Your task to perform on an android device: What's the weather going to be this weekend? Image 0: 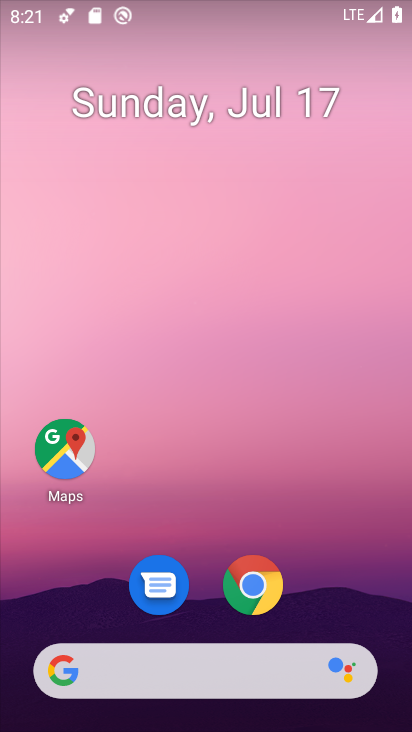
Step 0: click (247, 657)
Your task to perform on an android device: What's the weather going to be this weekend? Image 1: 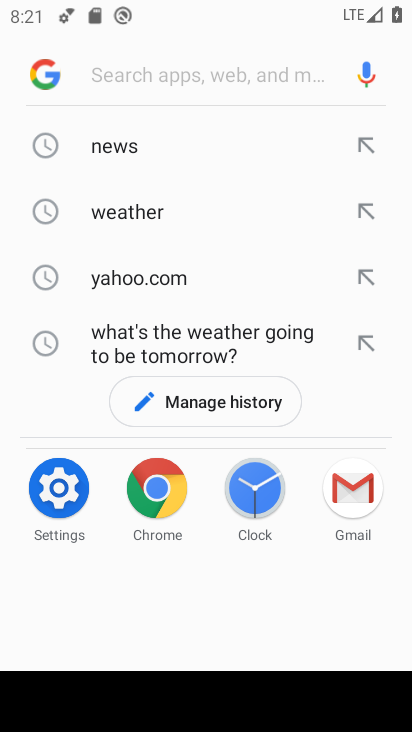
Step 1: click (145, 206)
Your task to perform on an android device: What's the weather going to be this weekend? Image 2: 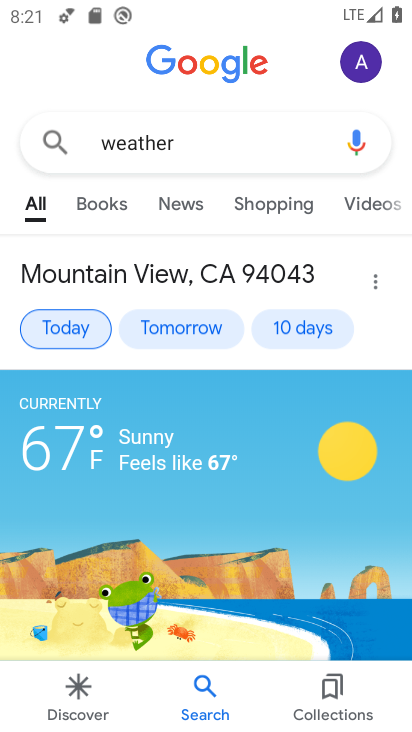
Step 2: click (55, 321)
Your task to perform on an android device: What's the weather going to be this weekend? Image 3: 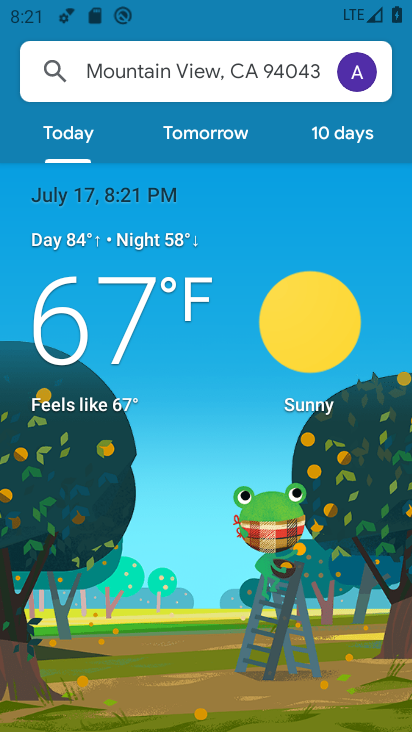
Step 3: click (361, 137)
Your task to perform on an android device: What's the weather going to be this weekend? Image 4: 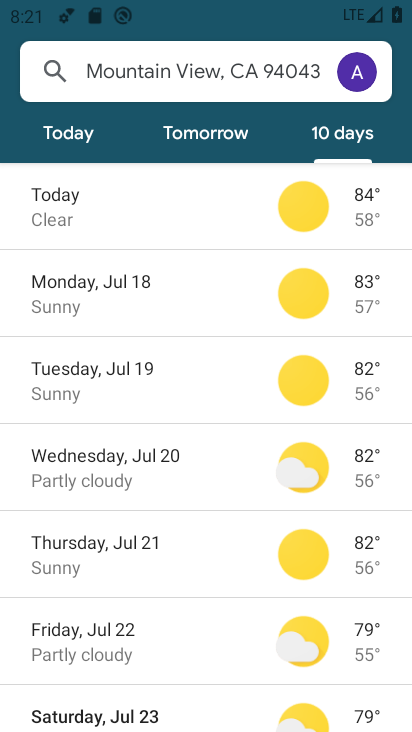
Step 4: task complete